Your task to perform on an android device: Set the phone to "Do not disturb". Image 0: 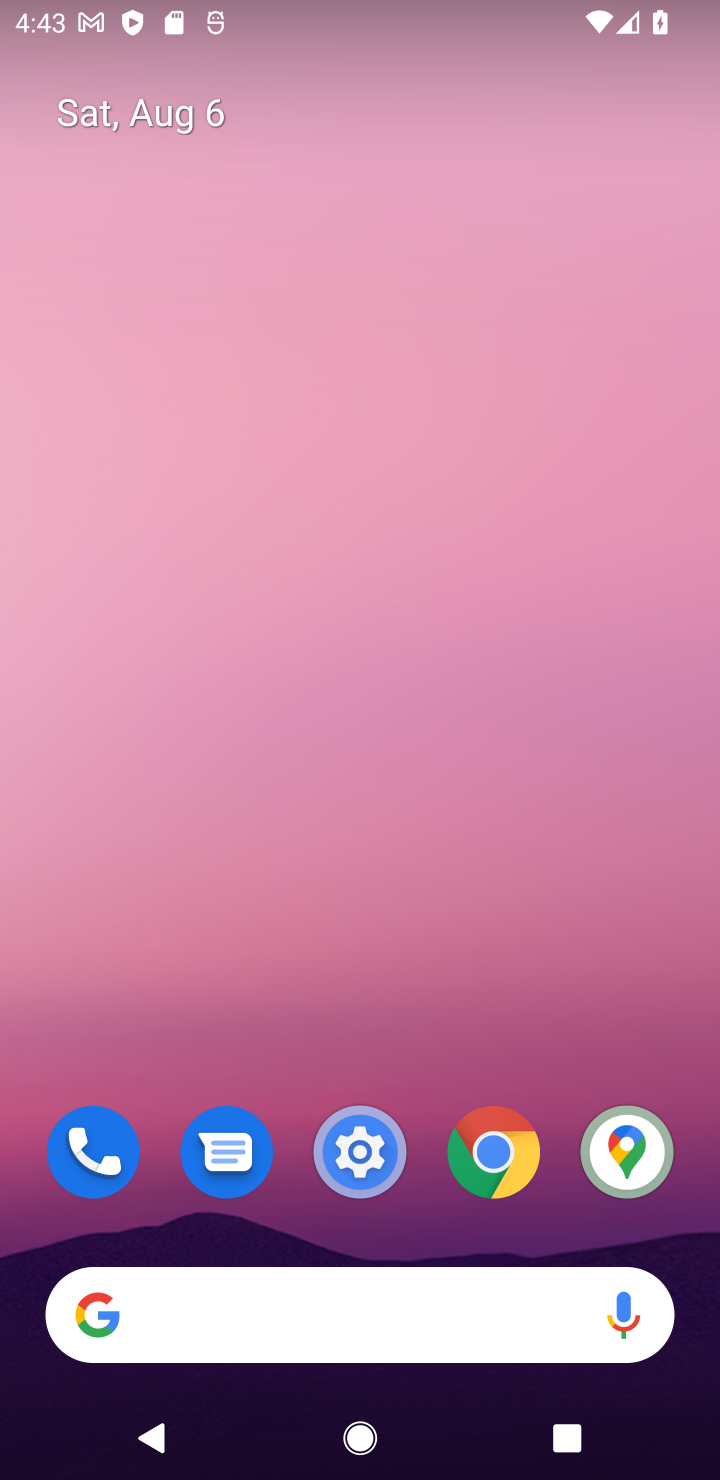
Step 0: drag from (561, 1213) to (654, 329)
Your task to perform on an android device: Set the phone to "Do not disturb". Image 1: 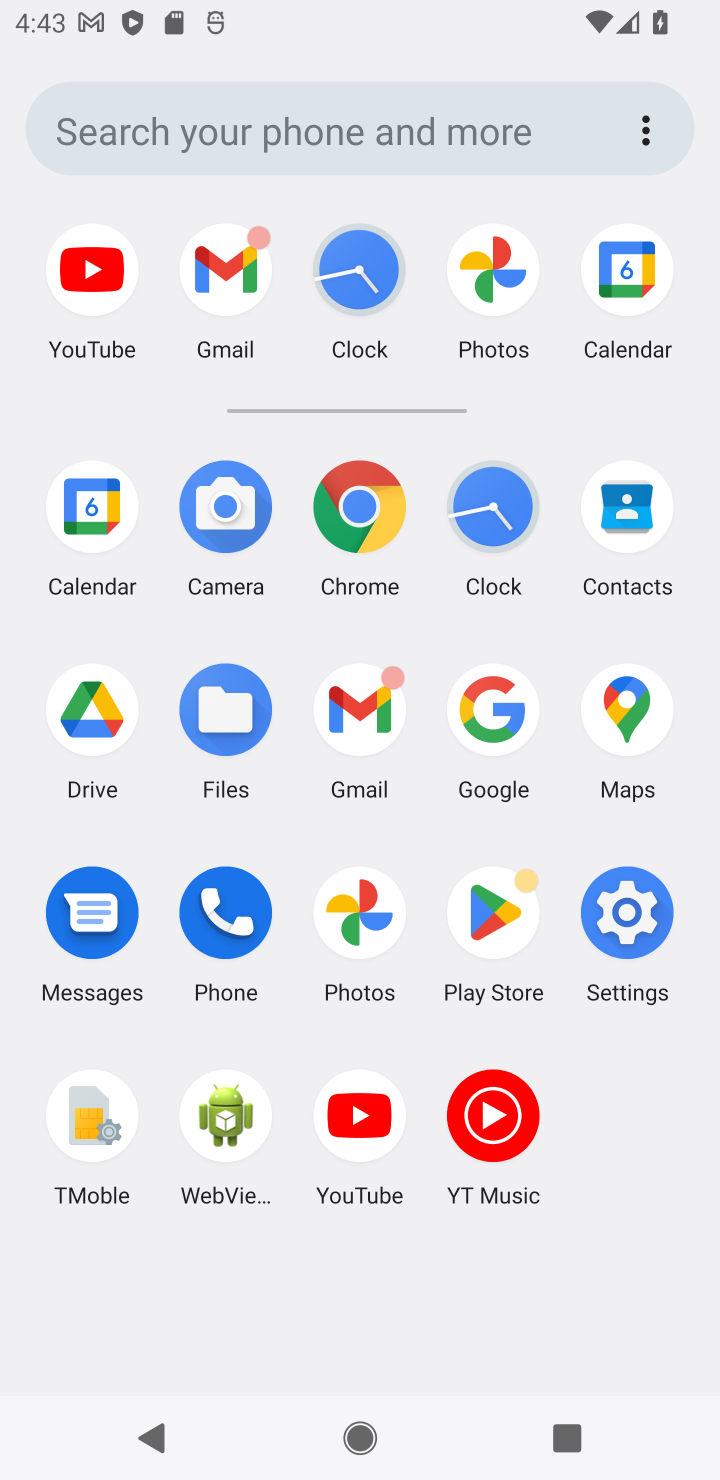
Step 1: drag from (430, 11) to (344, 1019)
Your task to perform on an android device: Set the phone to "Do not disturb". Image 2: 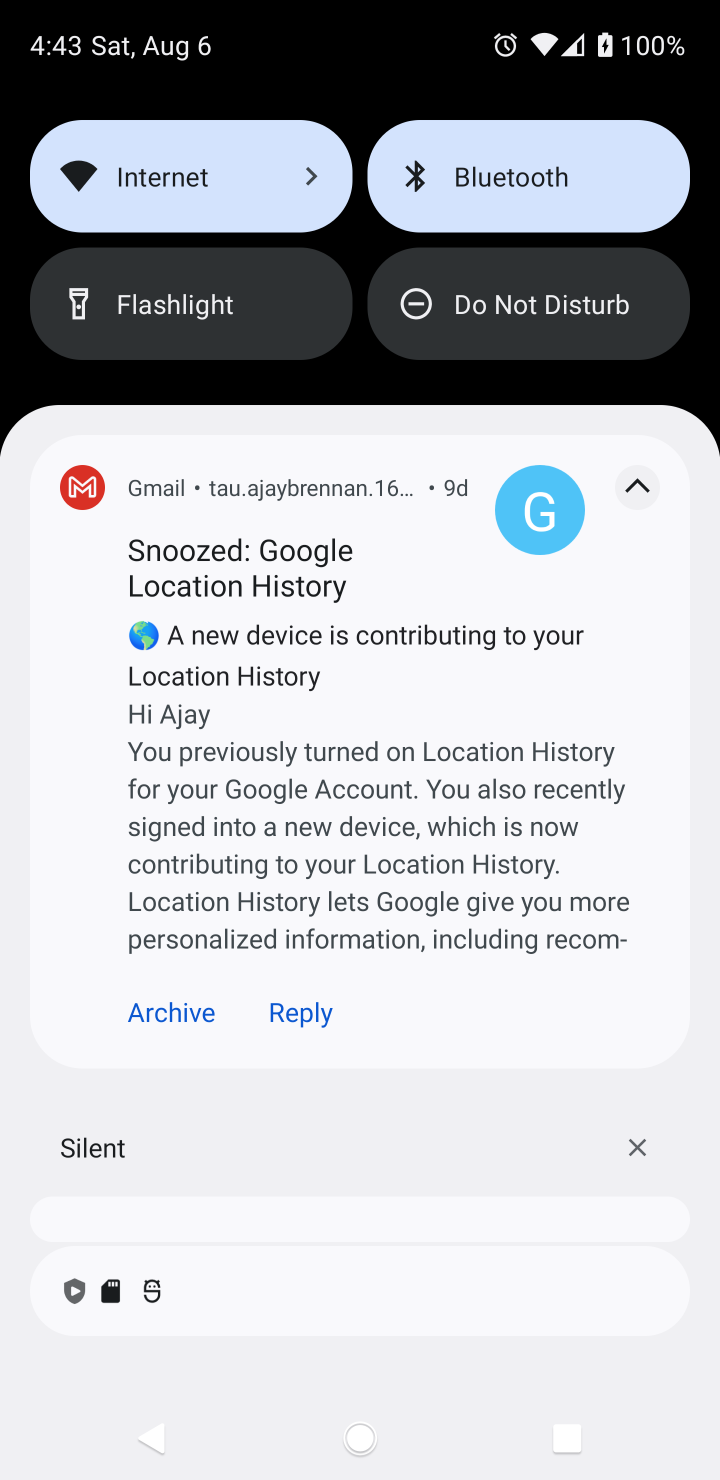
Step 2: click (581, 299)
Your task to perform on an android device: Set the phone to "Do not disturb". Image 3: 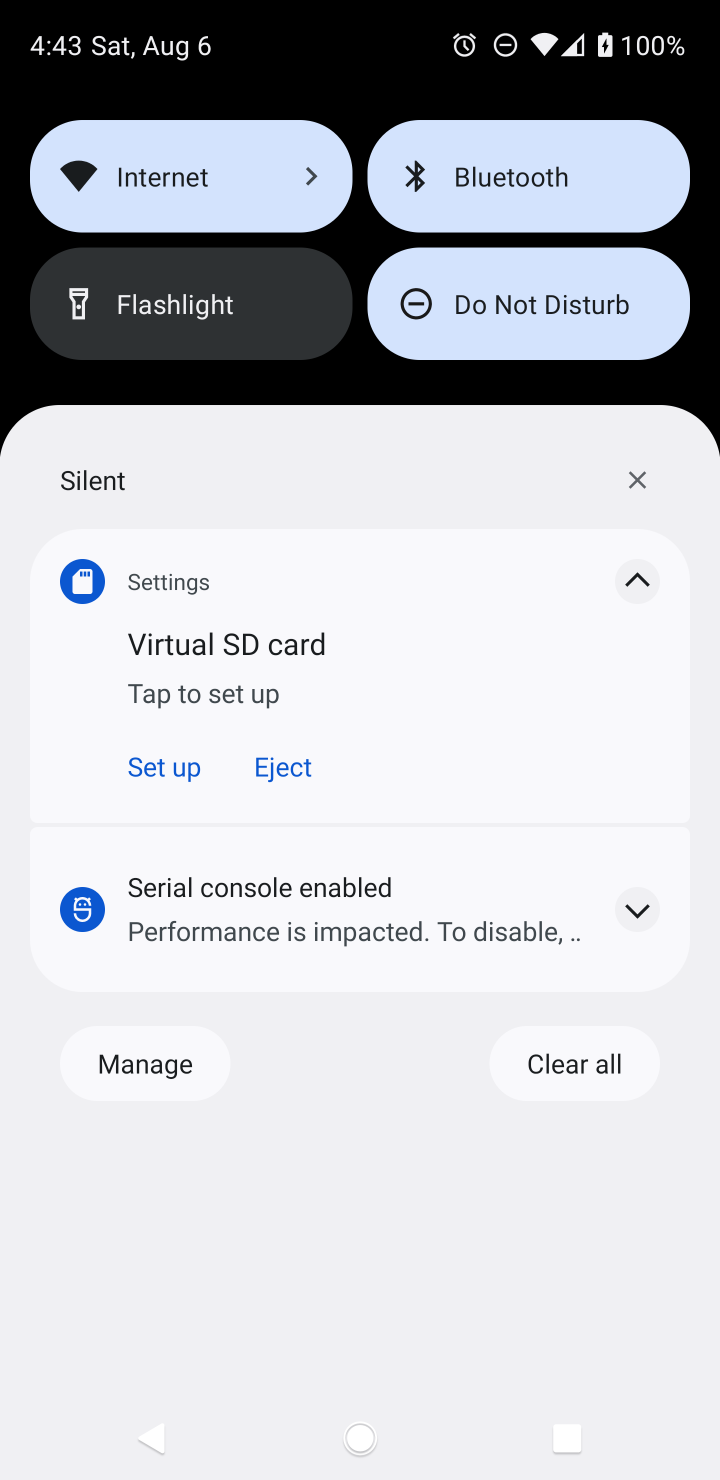
Step 3: task complete